Your task to perform on an android device: remove spam from my inbox in the gmail app Image 0: 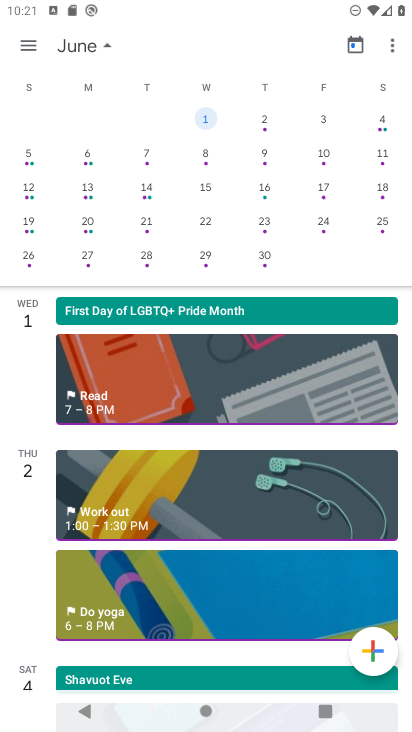
Step 0: press home button
Your task to perform on an android device: remove spam from my inbox in the gmail app Image 1: 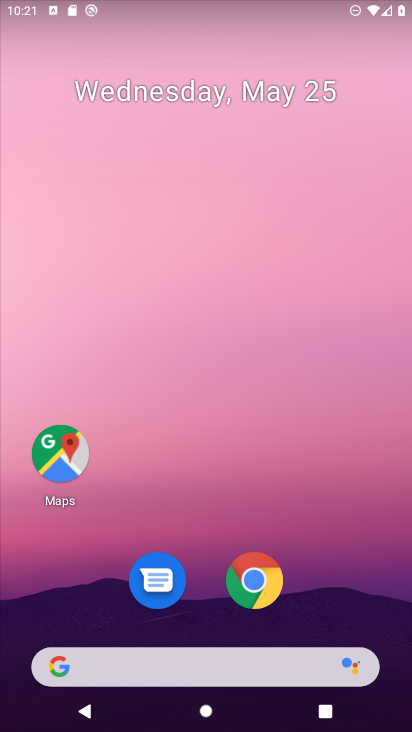
Step 1: drag from (4, 592) to (271, 95)
Your task to perform on an android device: remove spam from my inbox in the gmail app Image 2: 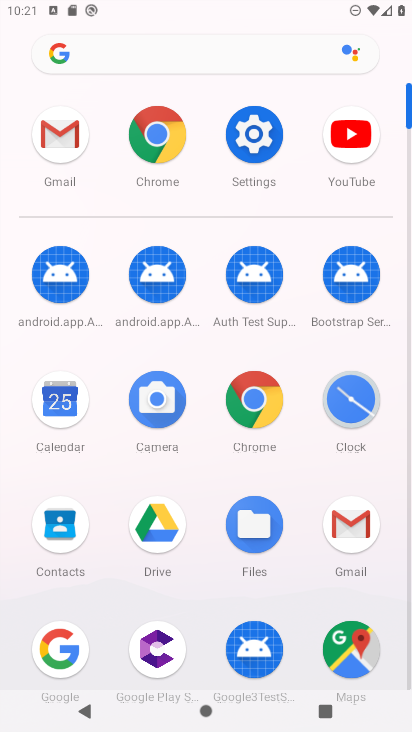
Step 2: click (335, 523)
Your task to perform on an android device: remove spam from my inbox in the gmail app Image 3: 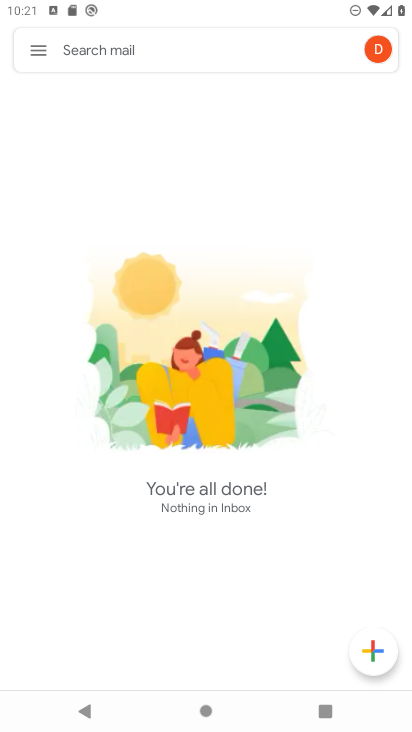
Step 3: click (35, 43)
Your task to perform on an android device: remove spam from my inbox in the gmail app Image 4: 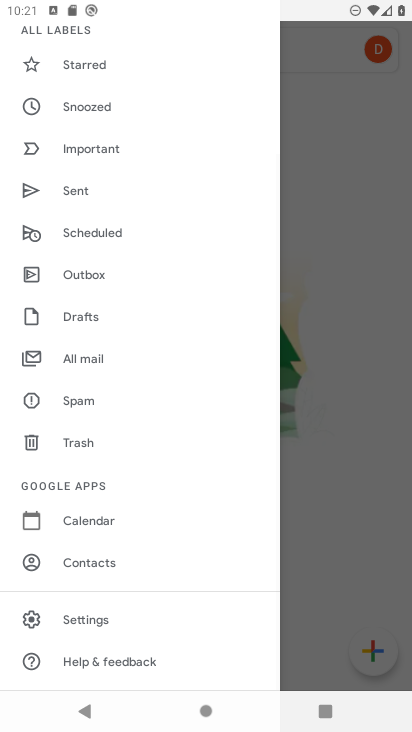
Step 4: click (123, 393)
Your task to perform on an android device: remove spam from my inbox in the gmail app Image 5: 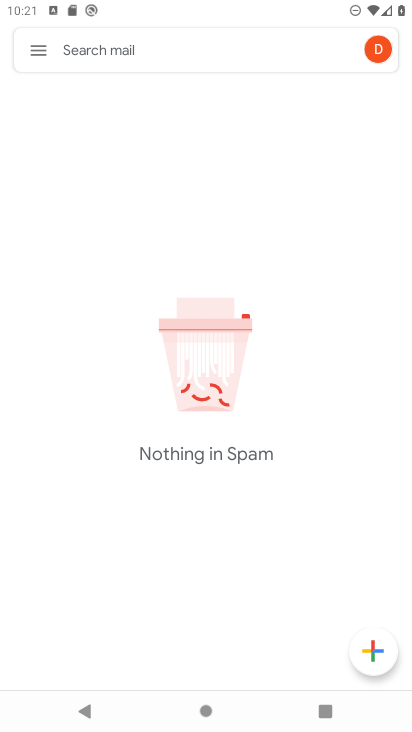
Step 5: task complete